Your task to perform on an android device: Open eBay Image 0: 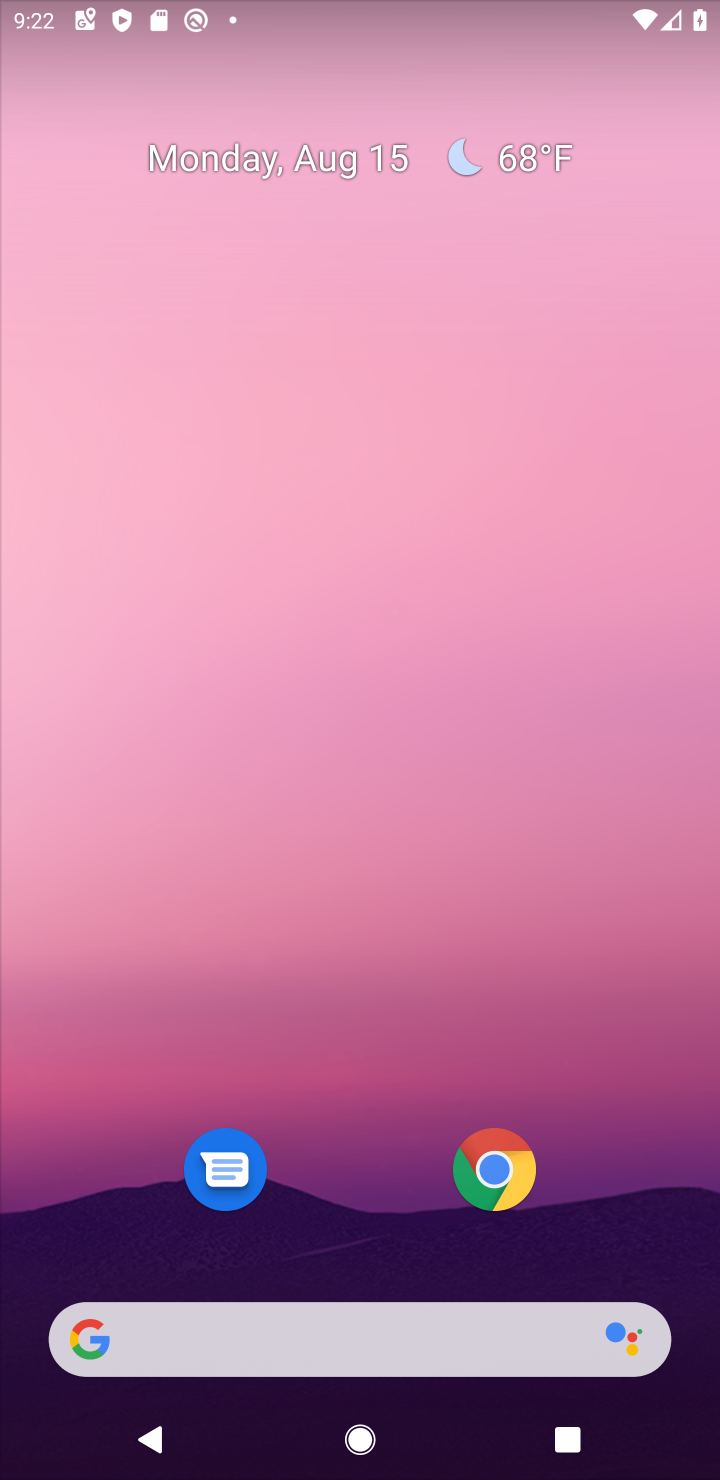
Step 0: click (507, 1189)
Your task to perform on an android device: Open eBay Image 1: 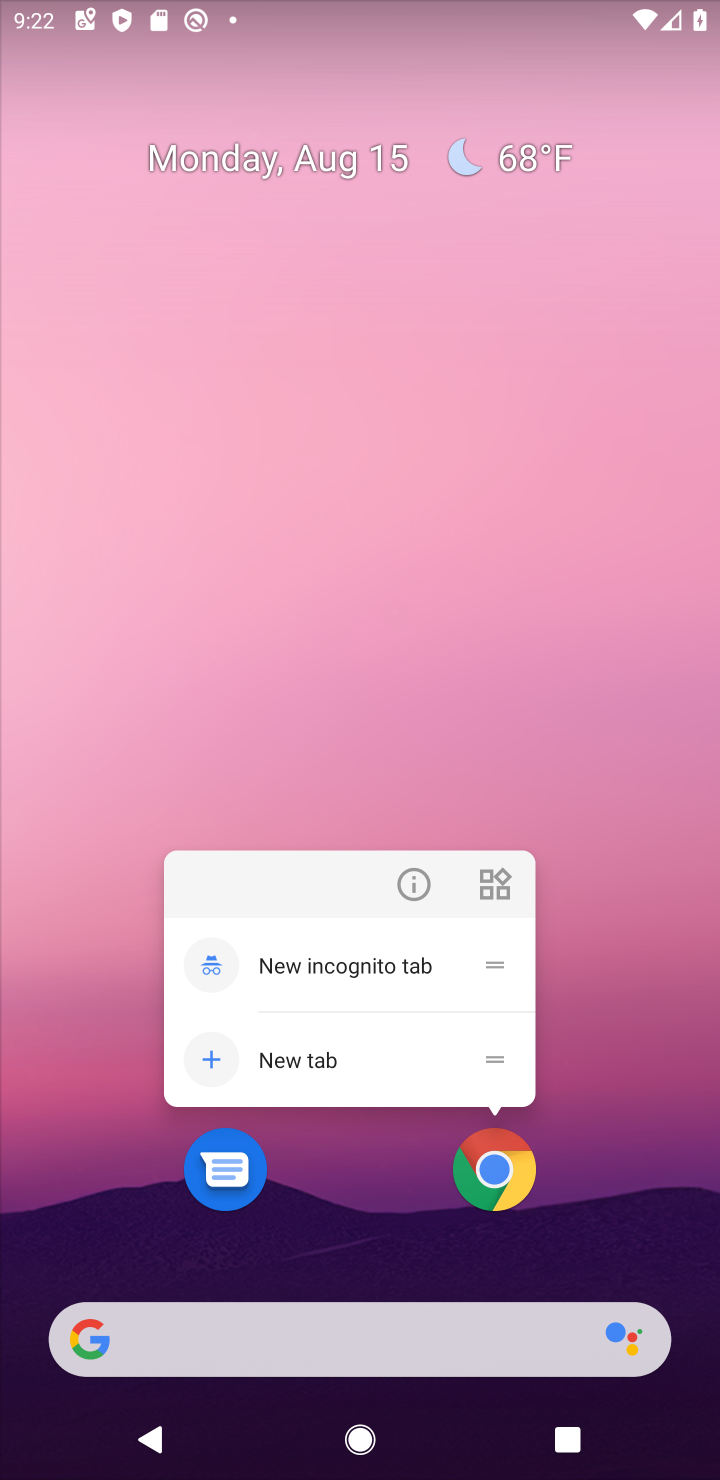
Step 1: click (493, 1164)
Your task to perform on an android device: Open eBay Image 2: 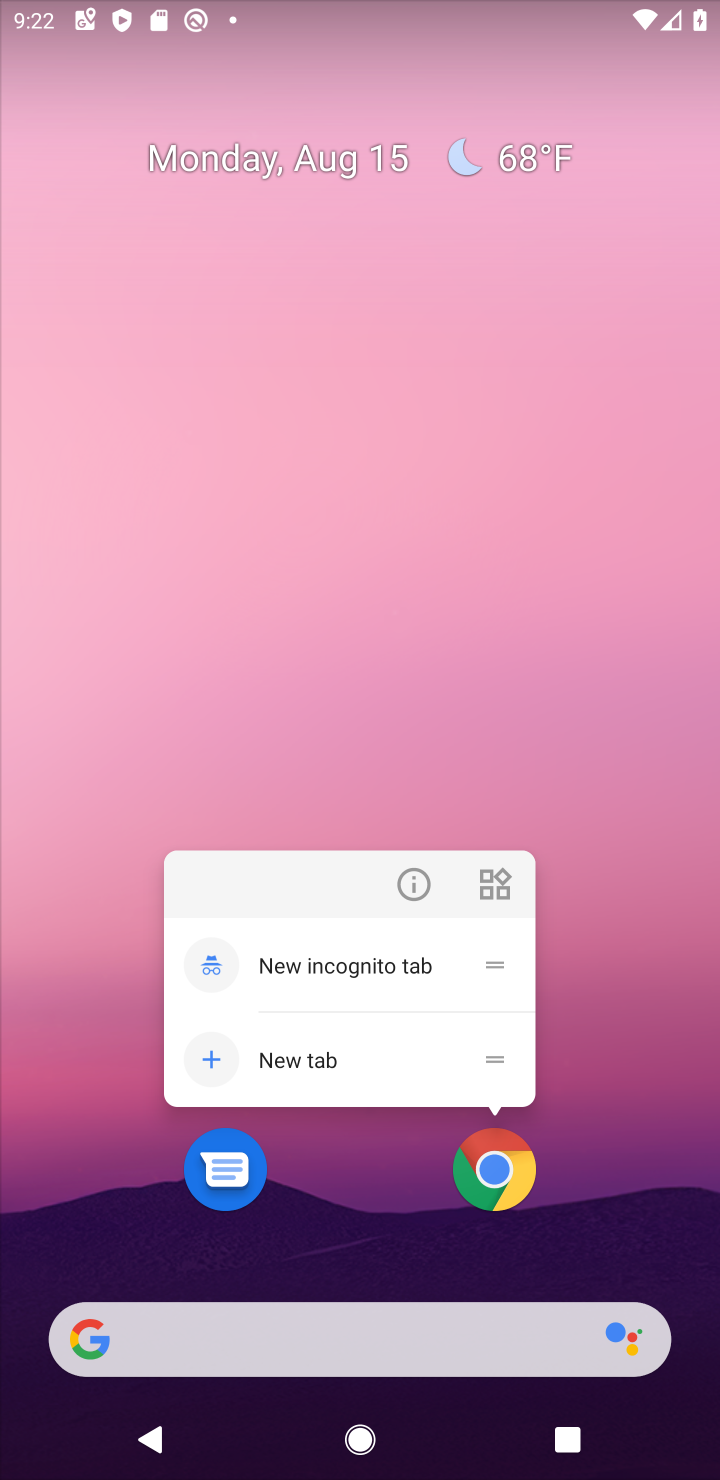
Step 2: click (493, 1175)
Your task to perform on an android device: Open eBay Image 3: 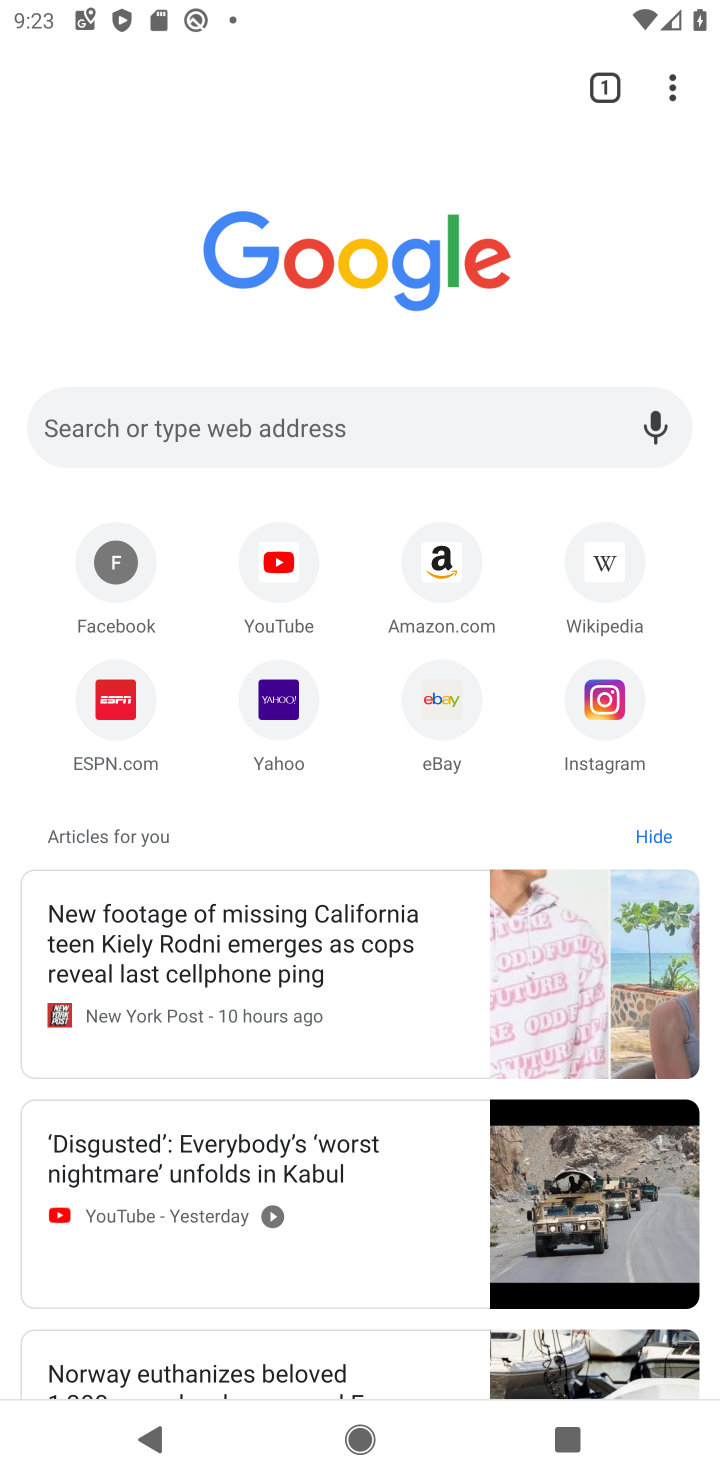
Step 3: click (444, 703)
Your task to perform on an android device: Open eBay Image 4: 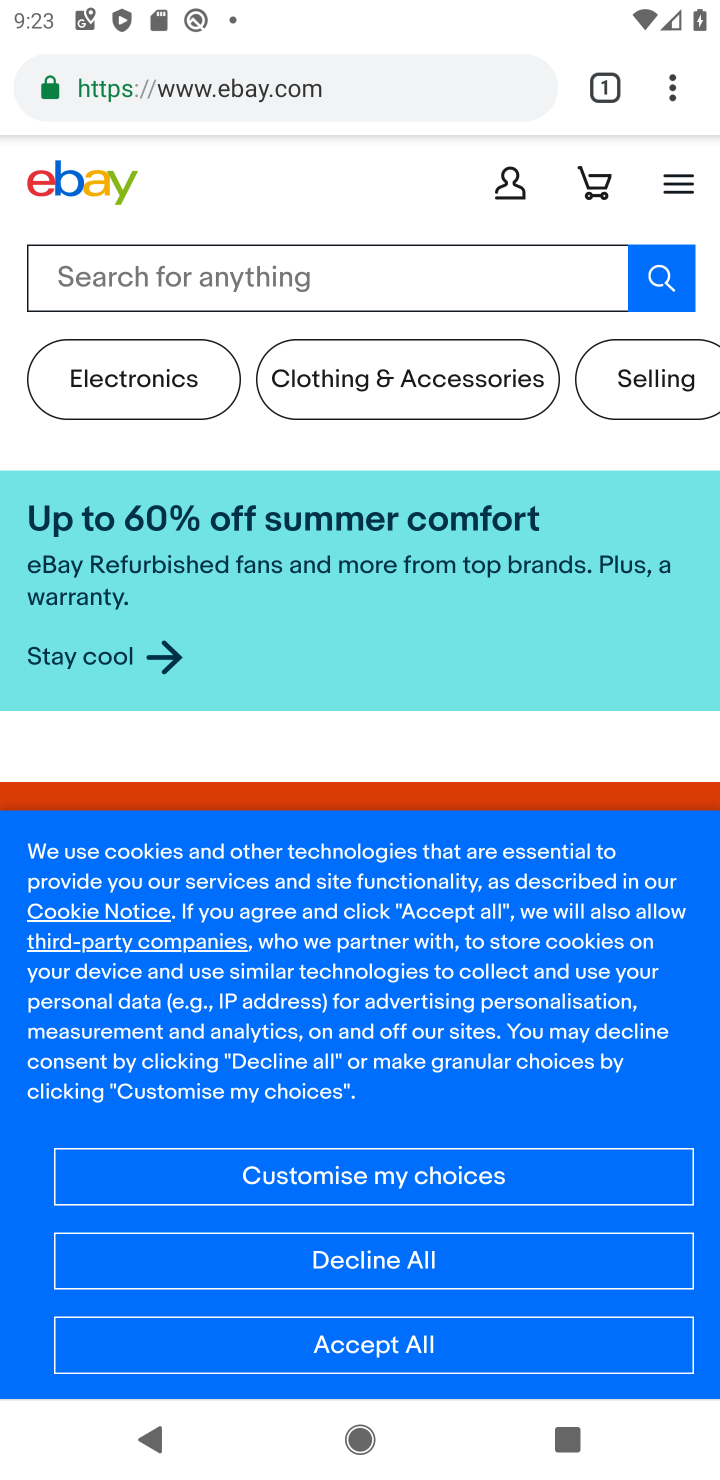
Step 4: click (369, 1351)
Your task to perform on an android device: Open eBay Image 5: 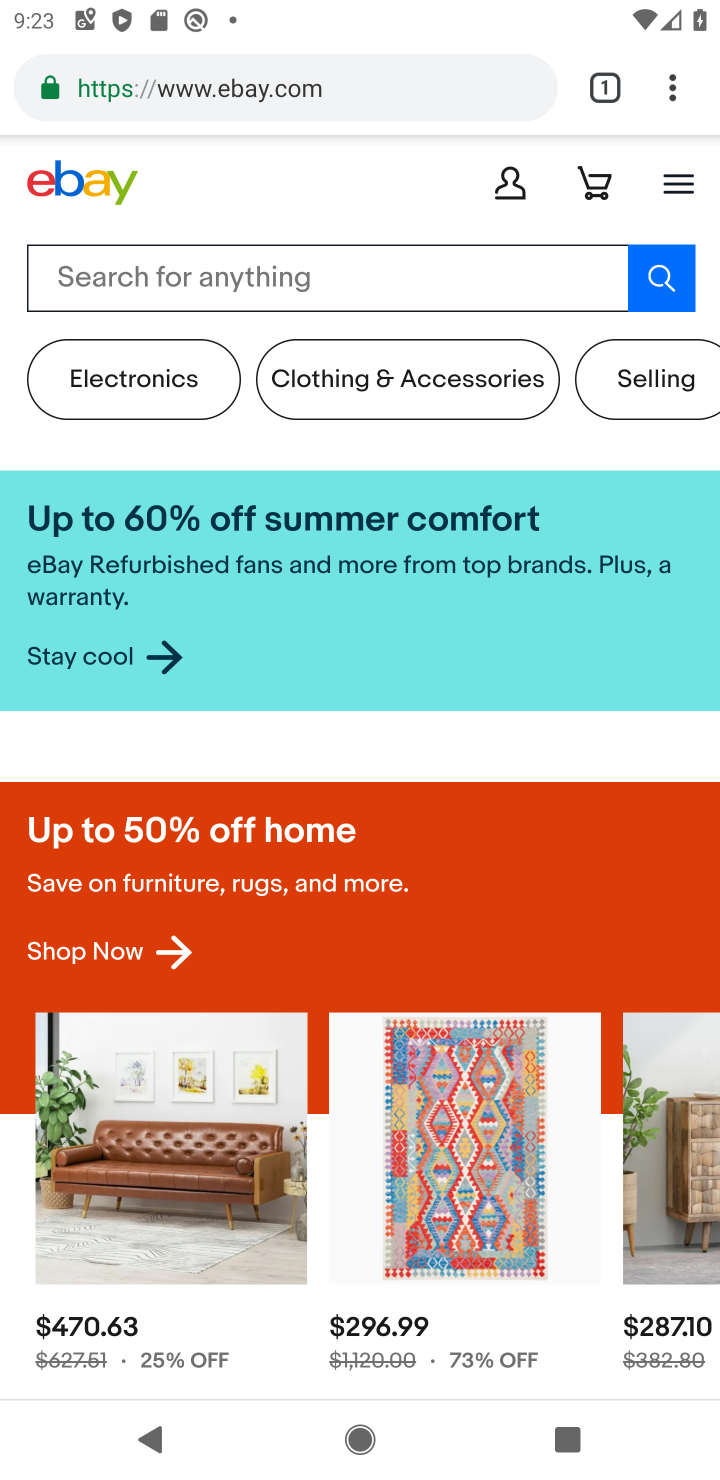
Step 5: task complete